Your task to perform on an android device: Go to ESPN.com Image 0: 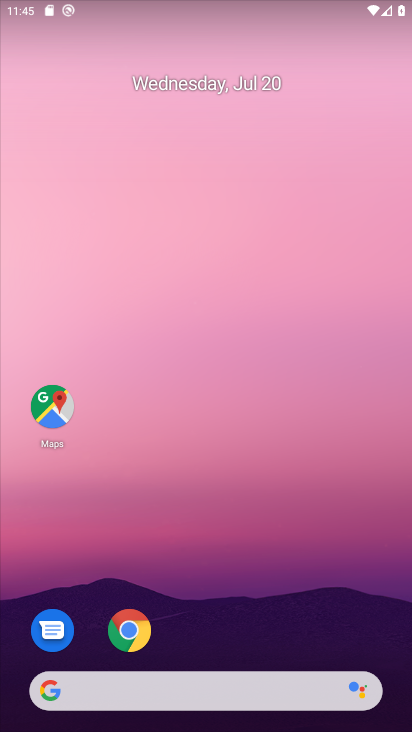
Step 0: click (218, 26)
Your task to perform on an android device: Go to ESPN.com Image 1: 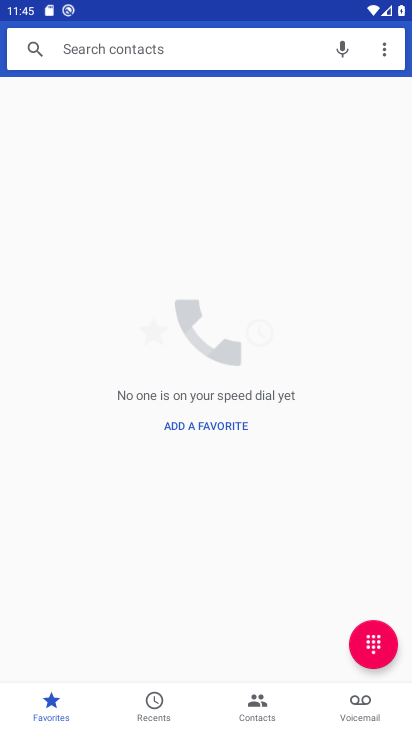
Step 1: drag from (211, 639) to (169, 102)
Your task to perform on an android device: Go to ESPN.com Image 2: 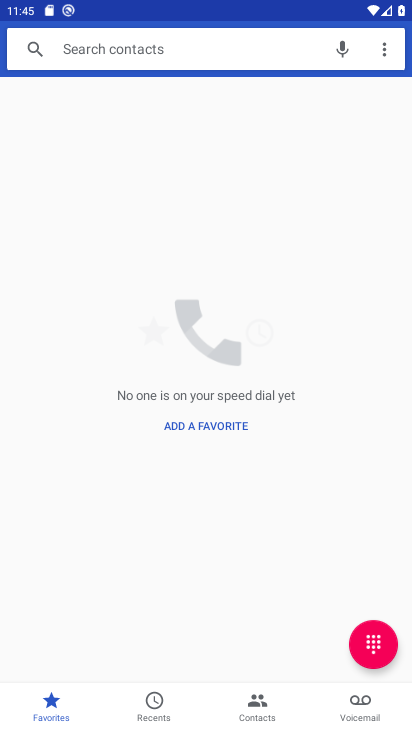
Step 2: press home button
Your task to perform on an android device: Go to ESPN.com Image 3: 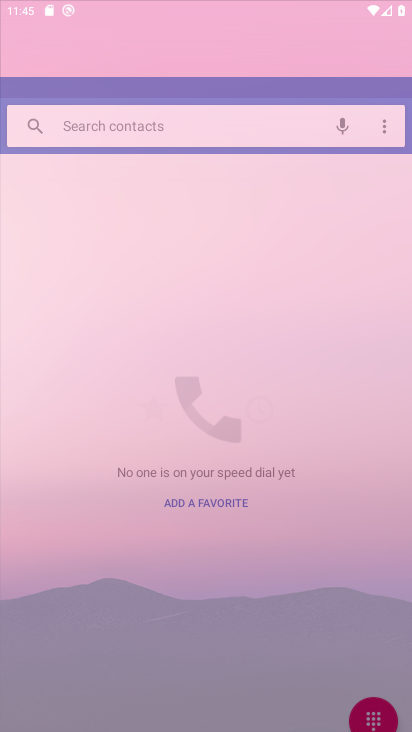
Step 3: drag from (211, 635) to (237, 199)
Your task to perform on an android device: Go to ESPN.com Image 4: 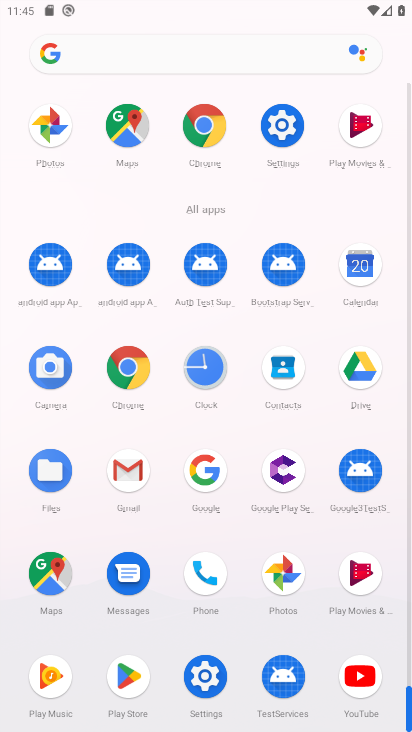
Step 4: click (122, 374)
Your task to perform on an android device: Go to ESPN.com Image 5: 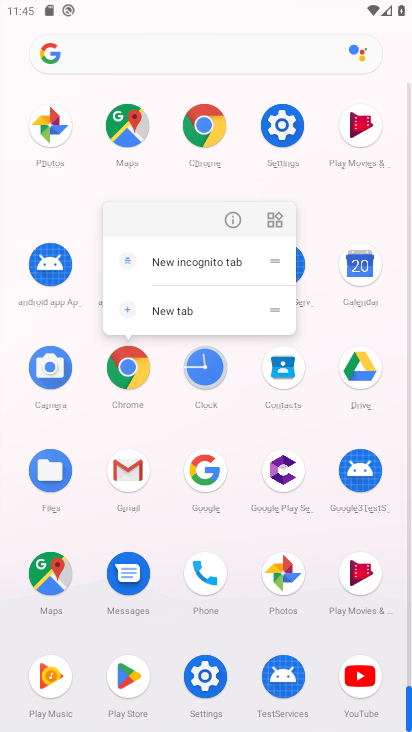
Step 5: click (233, 211)
Your task to perform on an android device: Go to ESPN.com Image 6: 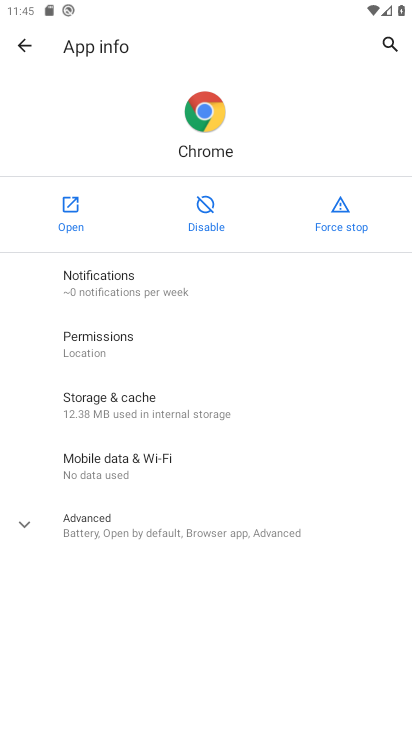
Step 6: click (69, 208)
Your task to perform on an android device: Go to ESPN.com Image 7: 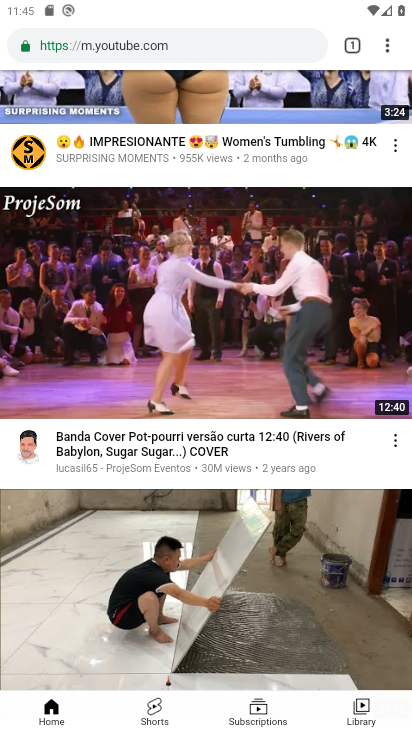
Step 7: click (198, 41)
Your task to perform on an android device: Go to ESPN.com Image 8: 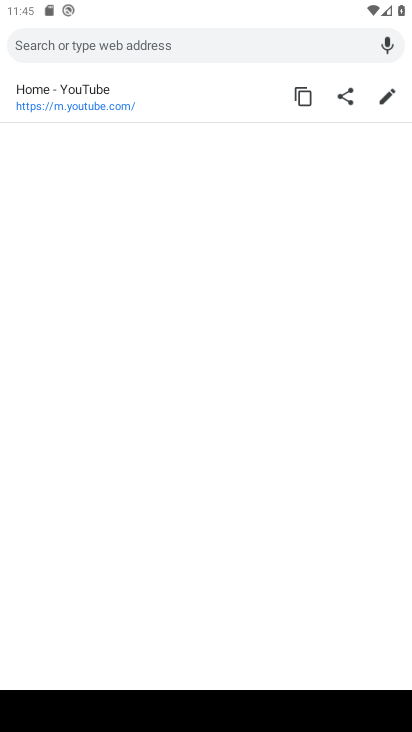
Step 8: type "ESPN.com"
Your task to perform on an android device: Go to ESPN.com Image 9: 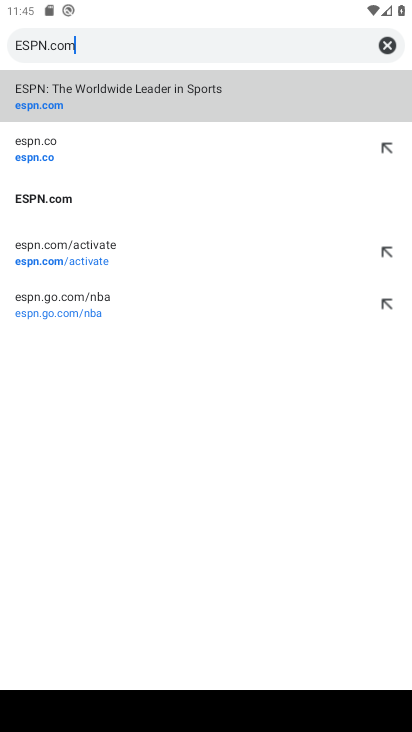
Step 9: type ""
Your task to perform on an android device: Go to ESPN.com Image 10: 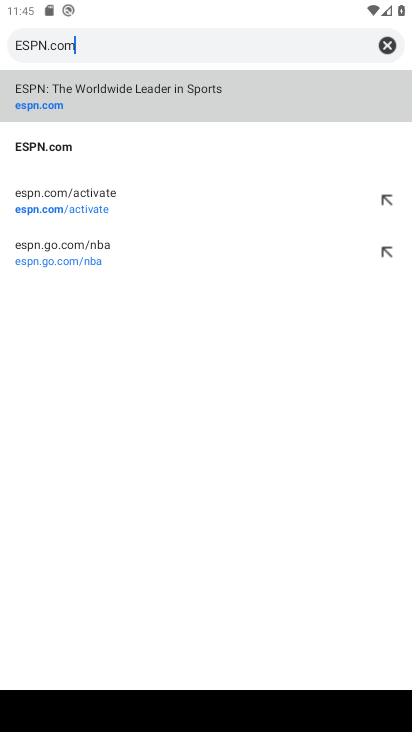
Step 10: click (28, 113)
Your task to perform on an android device: Go to ESPN.com Image 11: 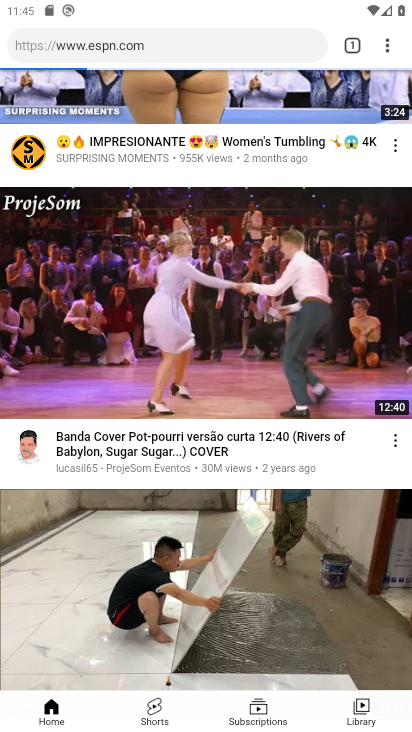
Step 11: task complete